Your task to perform on an android device: all mails in gmail Image 0: 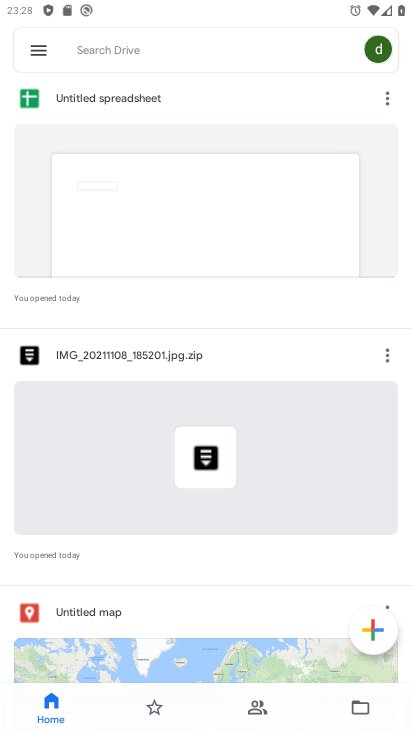
Step 0: press home button
Your task to perform on an android device: all mails in gmail Image 1: 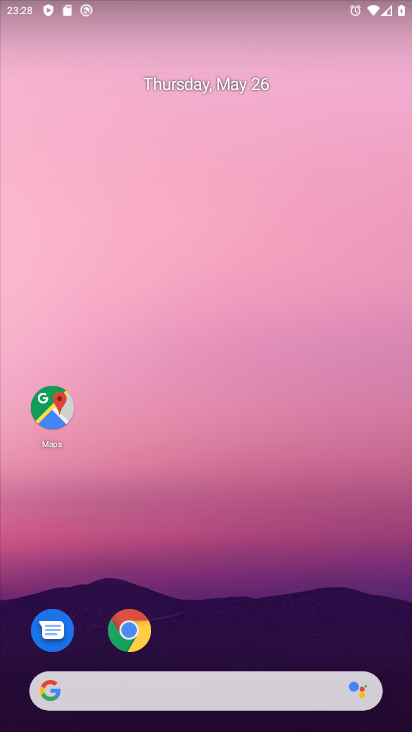
Step 1: drag from (204, 642) to (216, 193)
Your task to perform on an android device: all mails in gmail Image 2: 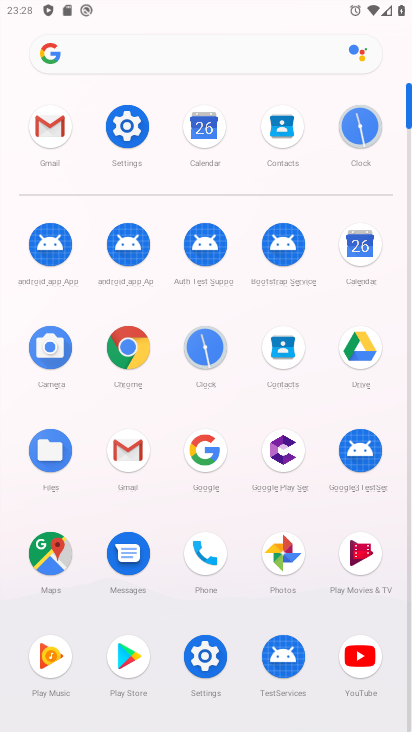
Step 2: click (50, 127)
Your task to perform on an android device: all mails in gmail Image 3: 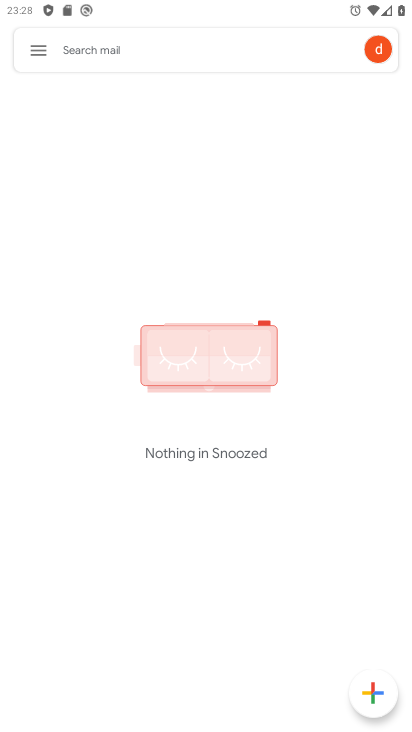
Step 3: click (39, 54)
Your task to perform on an android device: all mails in gmail Image 4: 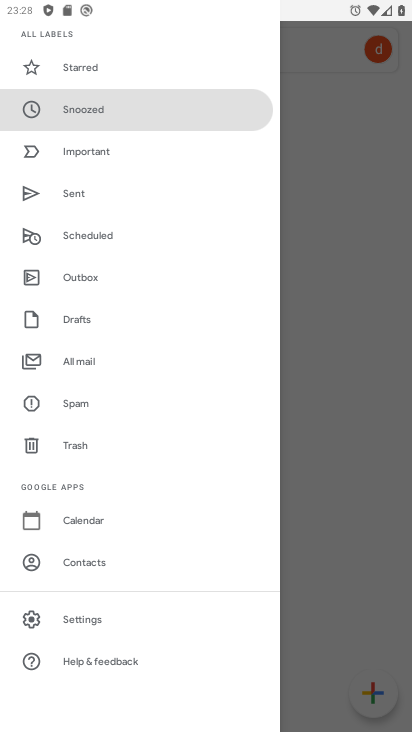
Step 4: click (74, 365)
Your task to perform on an android device: all mails in gmail Image 5: 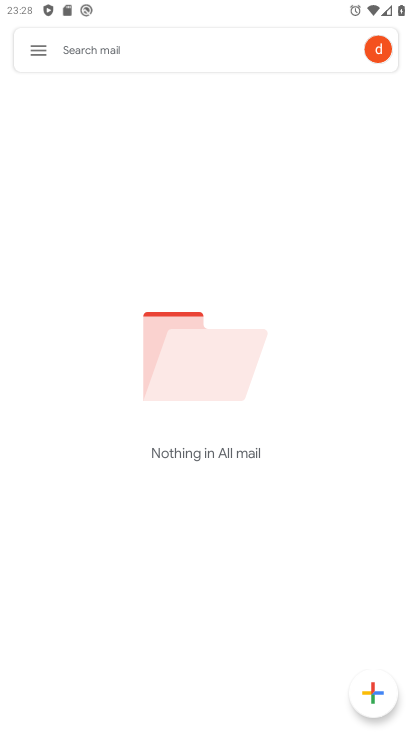
Step 5: task complete